Your task to perform on an android device: Open the calendar app, open the side menu, and click the "Day" option Image 0: 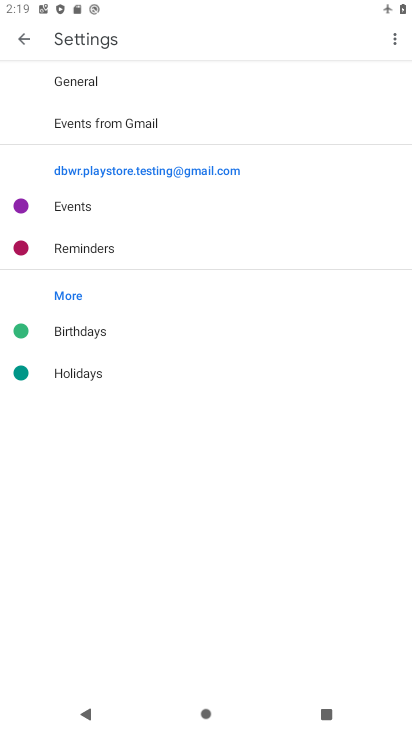
Step 0: press home button
Your task to perform on an android device: Open the calendar app, open the side menu, and click the "Day" option Image 1: 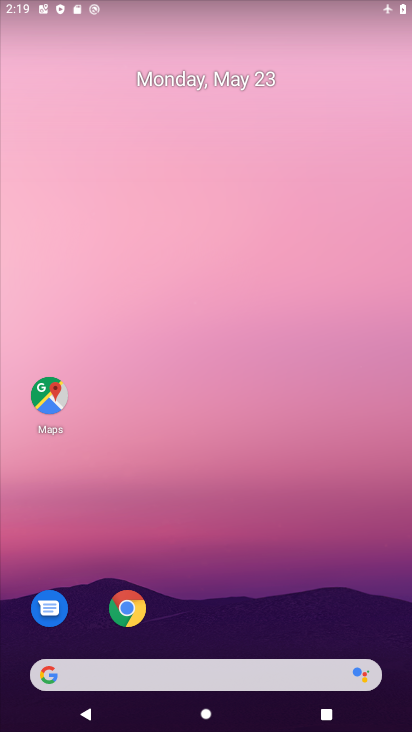
Step 1: drag from (205, 631) to (127, 92)
Your task to perform on an android device: Open the calendar app, open the side menu, and click the "Day" option Image 2: 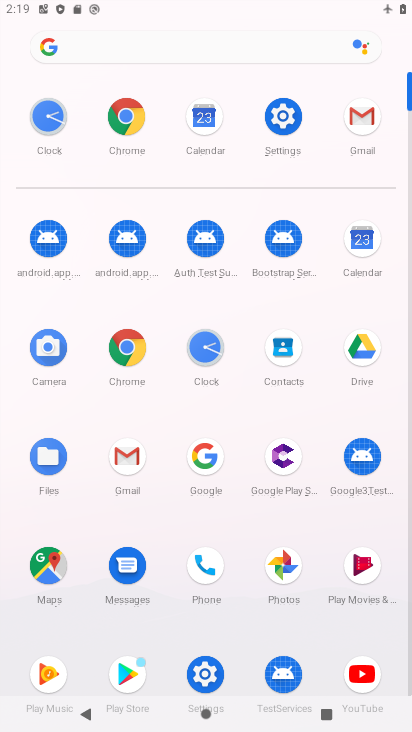
Step 2: click (359, 245)
Your task to perform on an android device: Open the calendar app, open the side menu, and click the "Day" option Image 3: 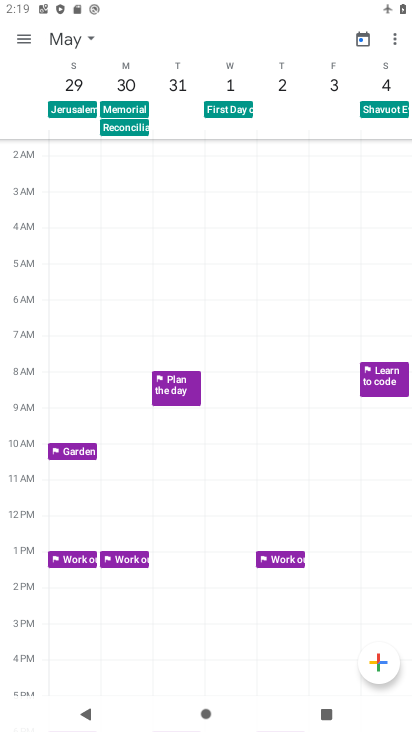
Step 3: click (20, 30)
Your task to perform on an android device: Open the calendar app, open the side menu, and click the "Day" option Image 4: 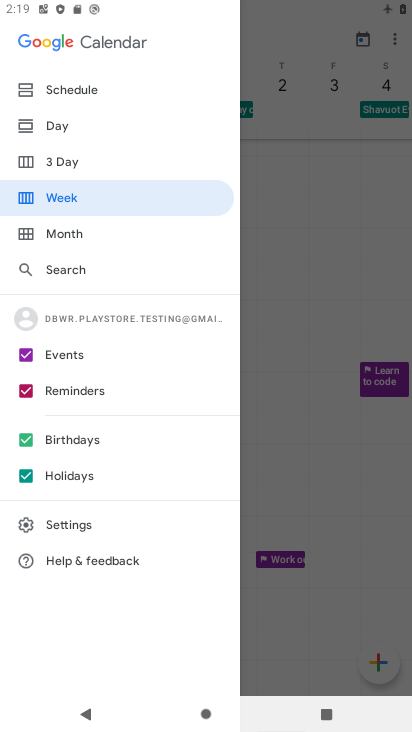
Step 4: click (58, 133)
Your task to perform on an android device: Open the calendar app, open the side menu, and click the "Day" option Image 5: 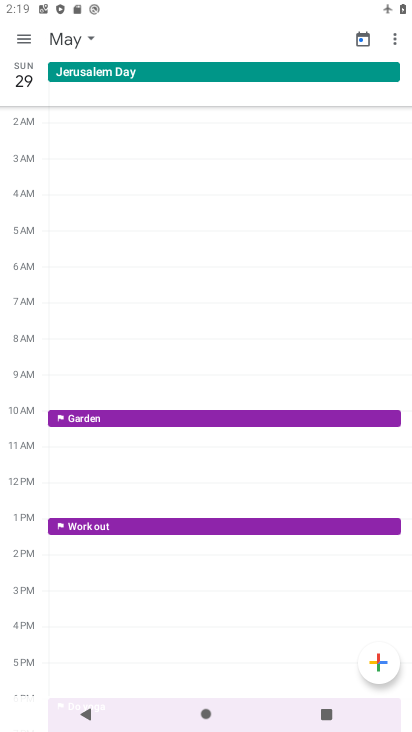
Step 5: task complete